Your task to perform on an android device: turn on the 24-hour format for clock Image 0: 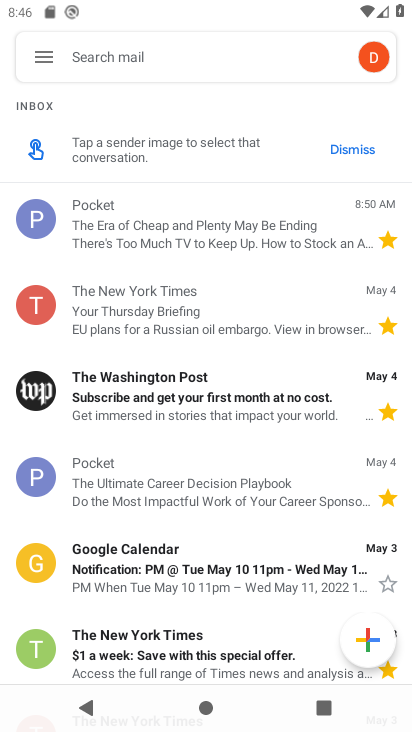
Step 0: press home button
Your task to perform on an android device: turn on the 24-hour format for clock Image 1: 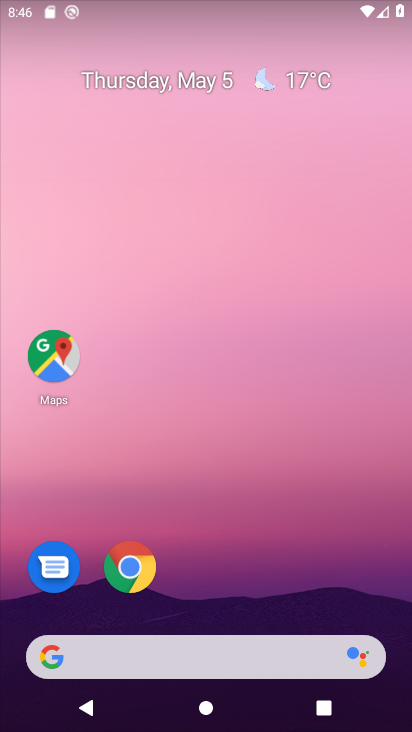
Step 1: drag from (268, 534) to (220, 35)
Your task to perform on an android device: turn on the 24-hour format for clock Image 2: 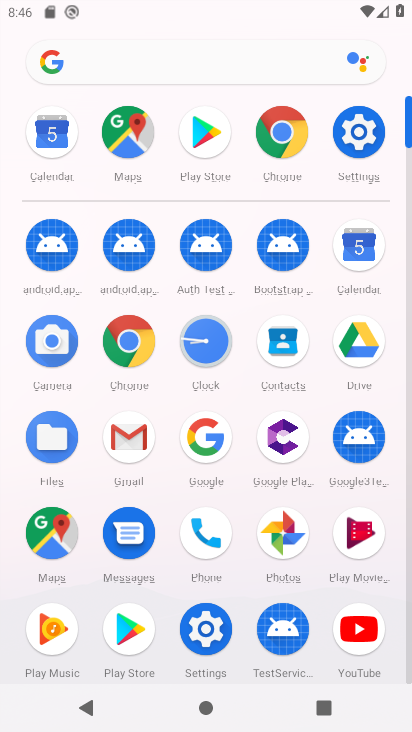
Step 2: click (217, 334)
Your task to perform on an android device: turn on the 24-hour format for clock Image 3: 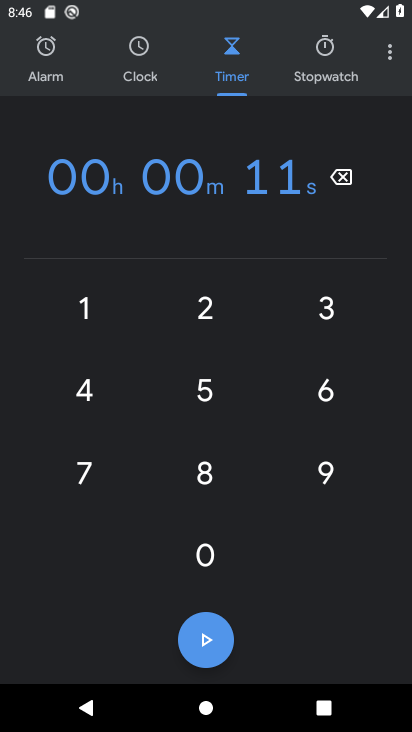
Step 3: click (385, 57)
Your task to perform on an android device: turn on the 24-hour format for clock Image 4: 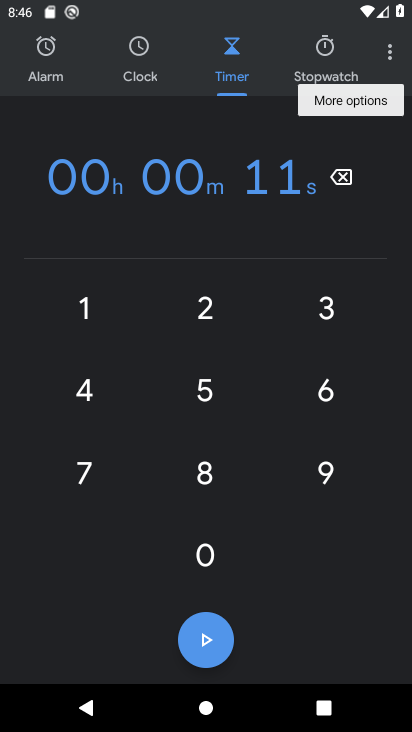
Step 4: click (385, 59)
Your task to perform on an android device: turn on the 24-hour format for clock Image 5: 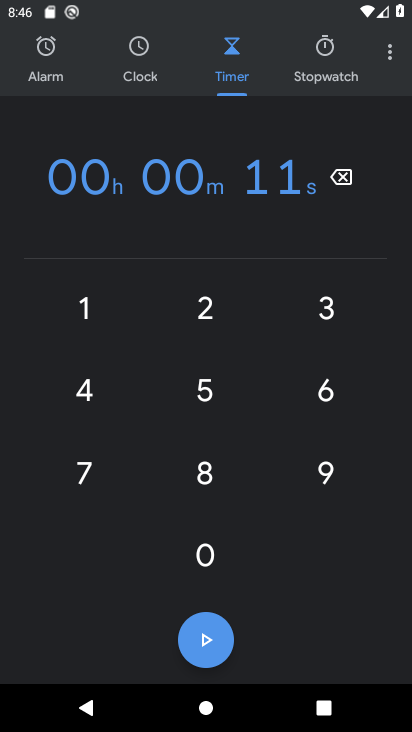
Step 5: click (387, 54)
Your task to perform on an android device: turn on the 24-hour format for clock Image 6: 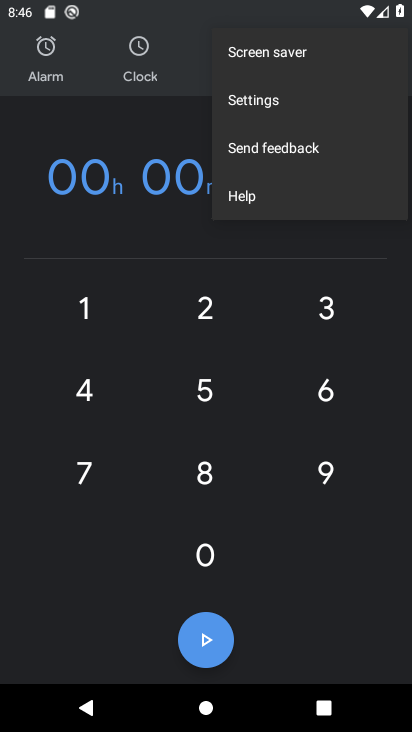
Step 6: click (332, 106)
Your task to perform on an android device: turn on the 24-hour format for clock Image 7: 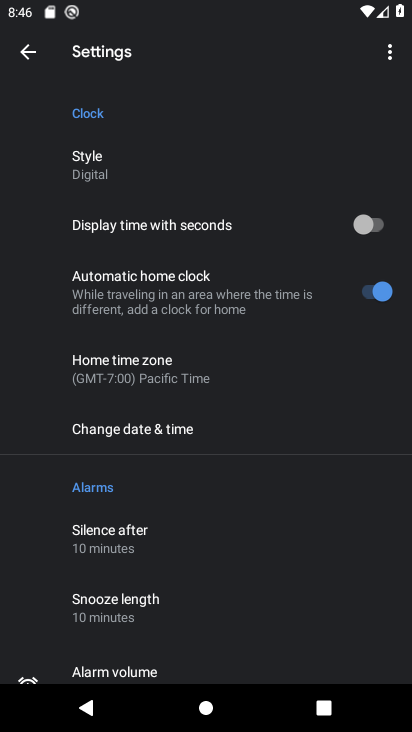
Step 7: click (252, 442)
Your task to perform on an android device: turn on the 24-hour format for clock Image 8: 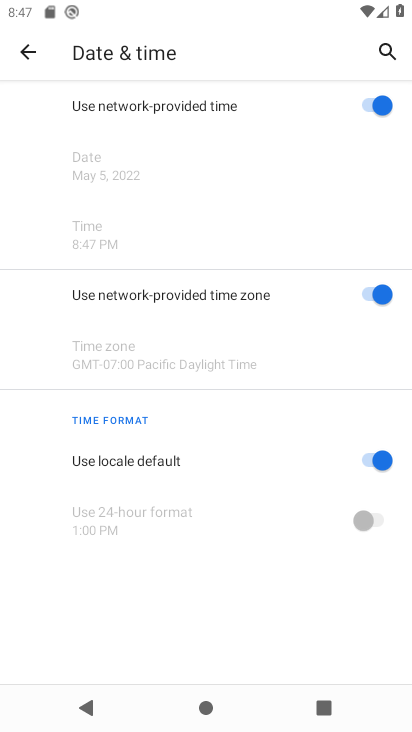
Step 8: click (372, 451)
Your task to perform on an android device: turn on the 24-hour format for clock Image 9: 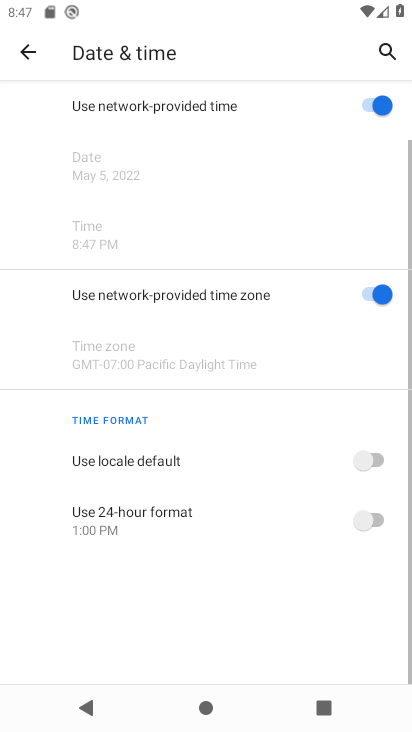
Step 9: click (369, 511)
Your task to perform on an android device: turn on the 24-hour format for clock Image 10: 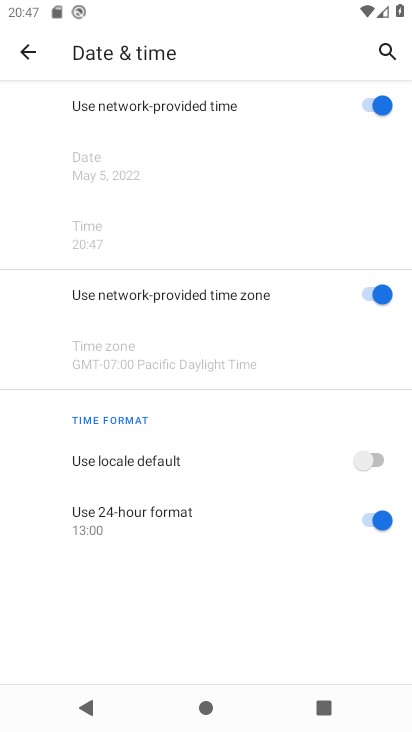
Step 10: task complete